Your task to perform on an android device: Open settings on Google Maps Image 0: 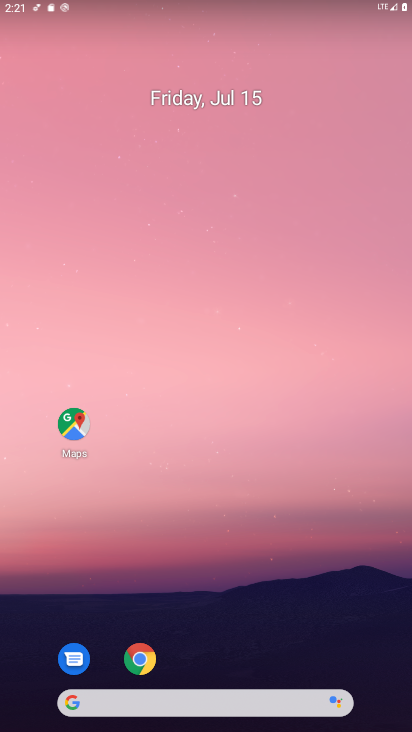
Step 0: drag from (147, 590) to (265, 66)
Your task to perform on an android device: Open settings on Google Maps Image 1: 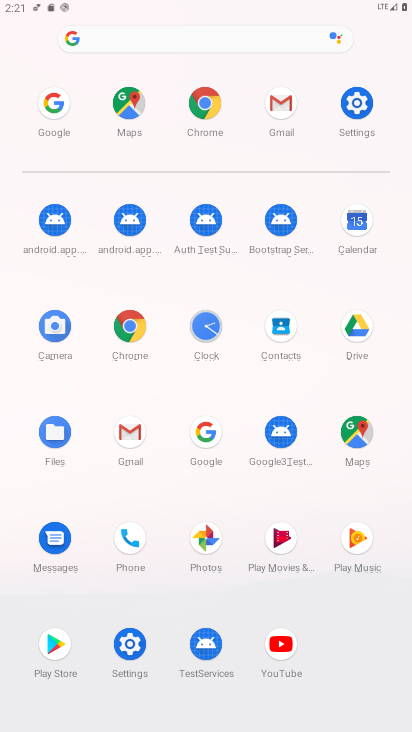
Step 1: click (355, 429)
Your task to perform on an android device: Open settings on Google Maps Image 2: 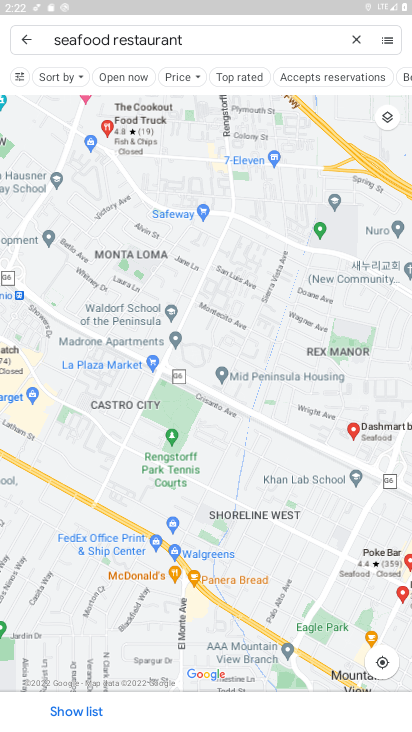
Step 2: click (28, 36)
Your task to perform on an android device: Open settings on Google Maps Image 3: 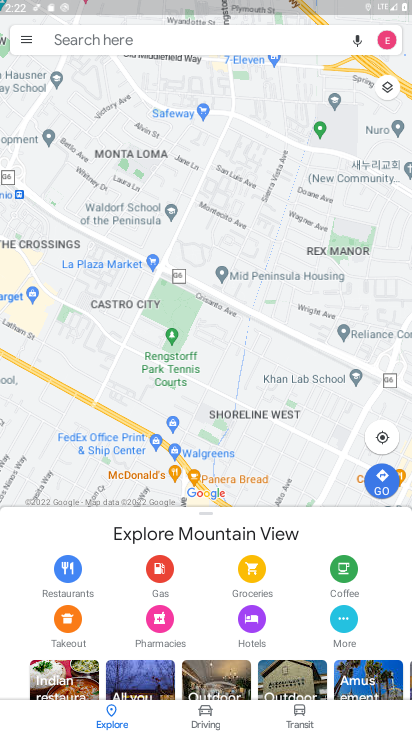
Step 3: click (29, 43)
Your task to perform on an android device: Open settings on Google Maps Image 4: 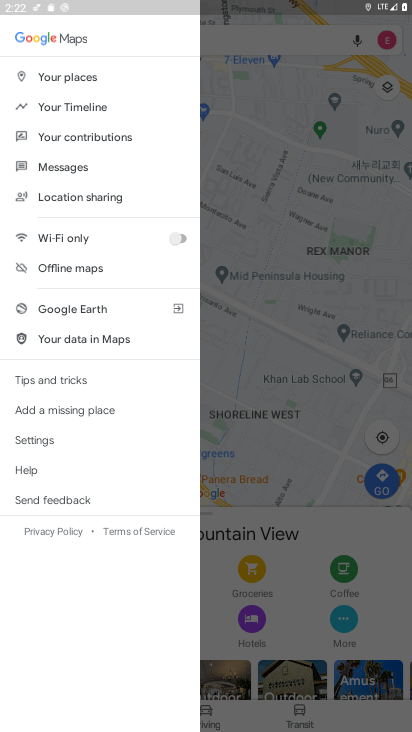
Step 4: click (37, 434)
Your task to perform on an android device: Open settings on Google Maps Image 5: 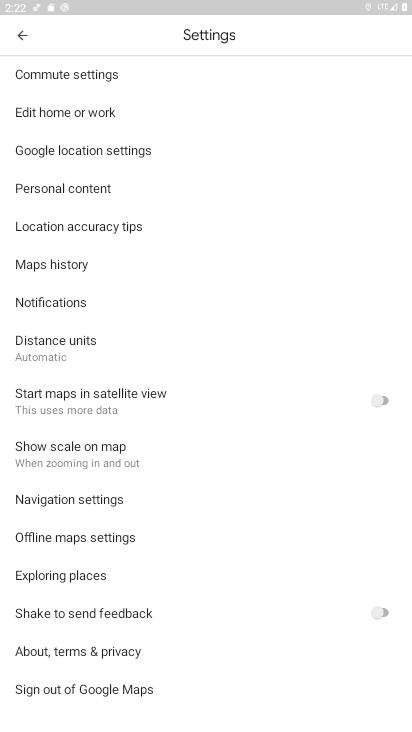
Step 5: task complete